Your task to perform on an android device: Go to battery settings Image 0: 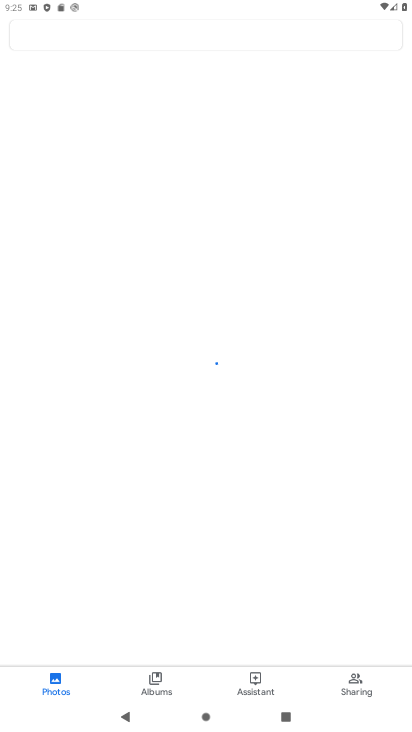
Step 0: press home button
Your task to perform on an android device: Go to battery settings Image 1: 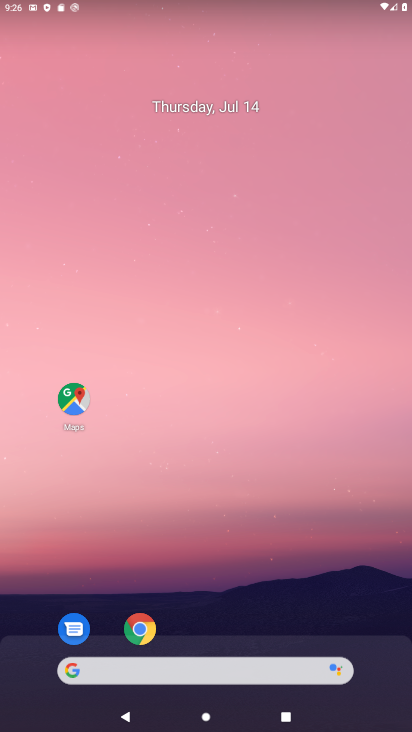
Step 1: drag from (229, 545) to (278, 123)
Your task to perform on an android device: Go to battery settings Image 2: 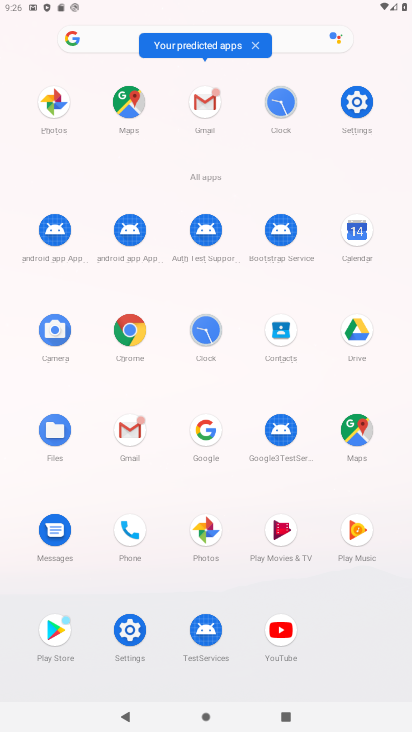
Step 2: click (348, 91)
Your task to perform on an android device: Go to battery settings Image 3: 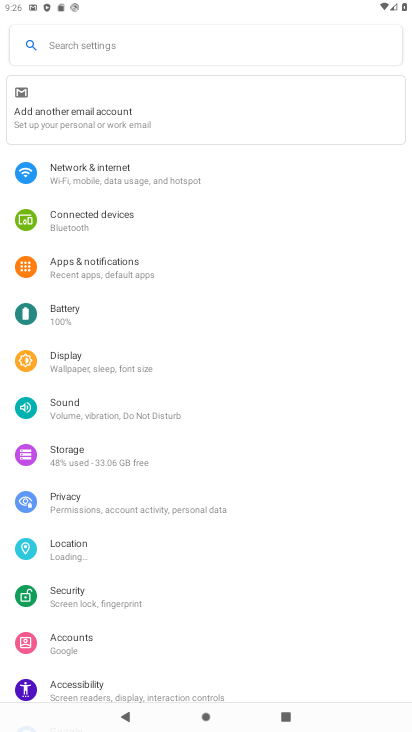
Step 3: click (77, 313)
Your task to perform on an android device: Go to battery settings Image 4: 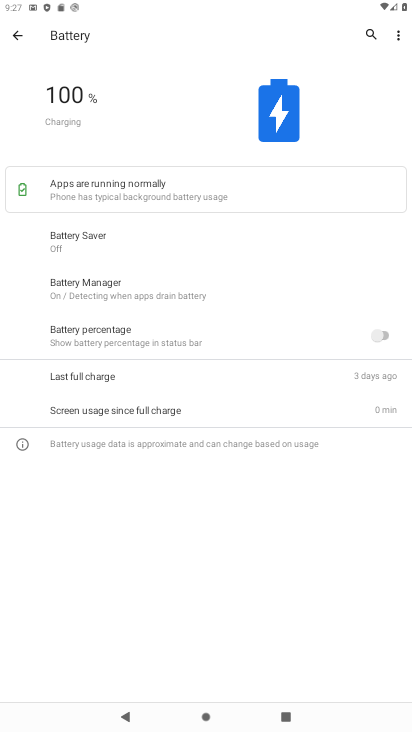
Step 4: task complete